Your task to perform on an android device: What's the weather going to be this weekend? Image 0: 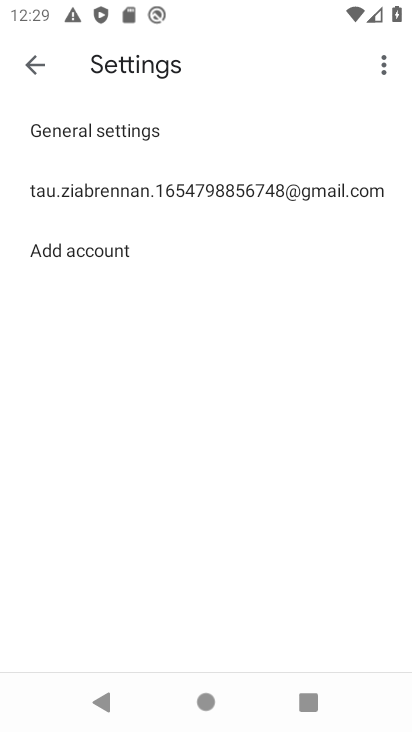
Step 0: task complete